Your task to perform on an android device: open app "Pandora - Music & Podcasts" (install if not already installed) and go to login screen Image 0: 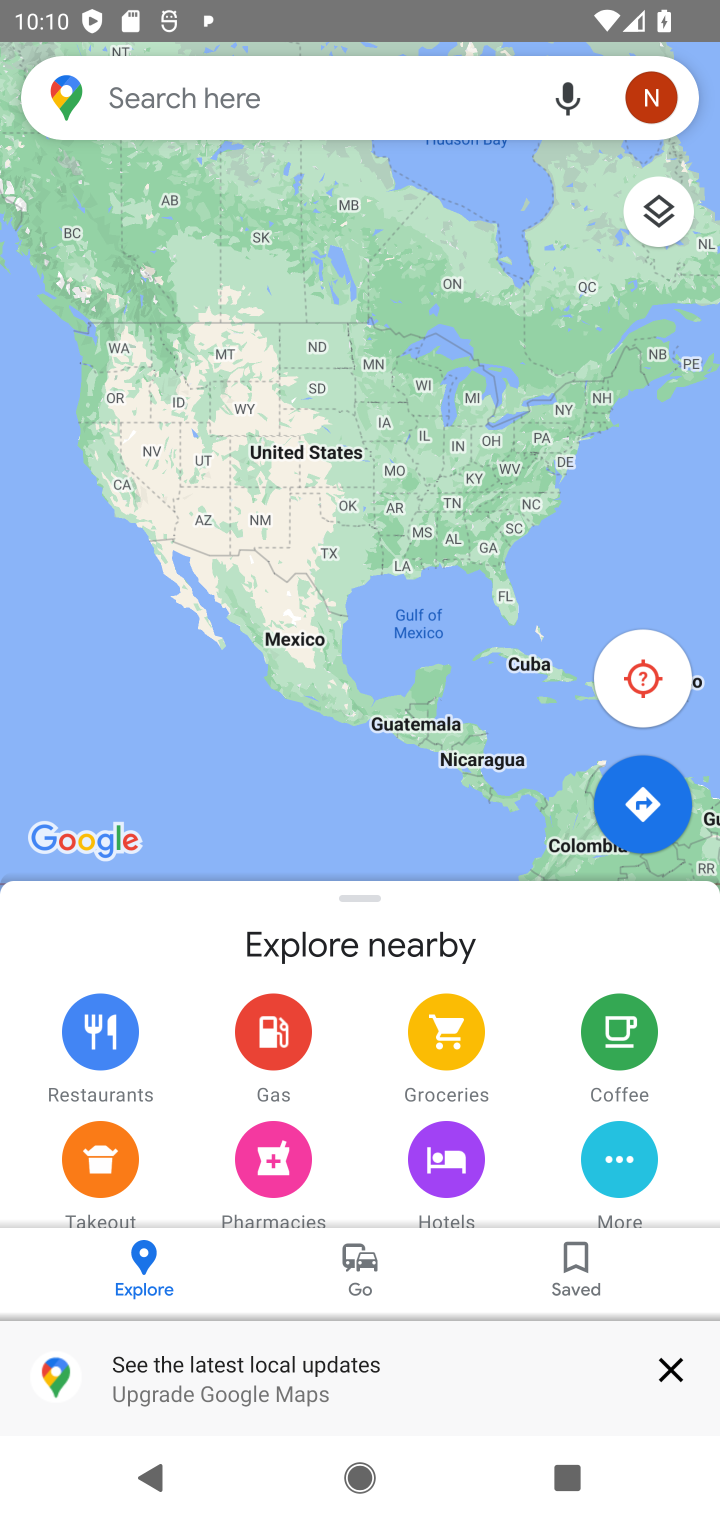
Step 0: press home button
Your task to perform on an android device: open app "Pandora - Music & Podcasts" (install if not already installed) and go to login screen Image 1: 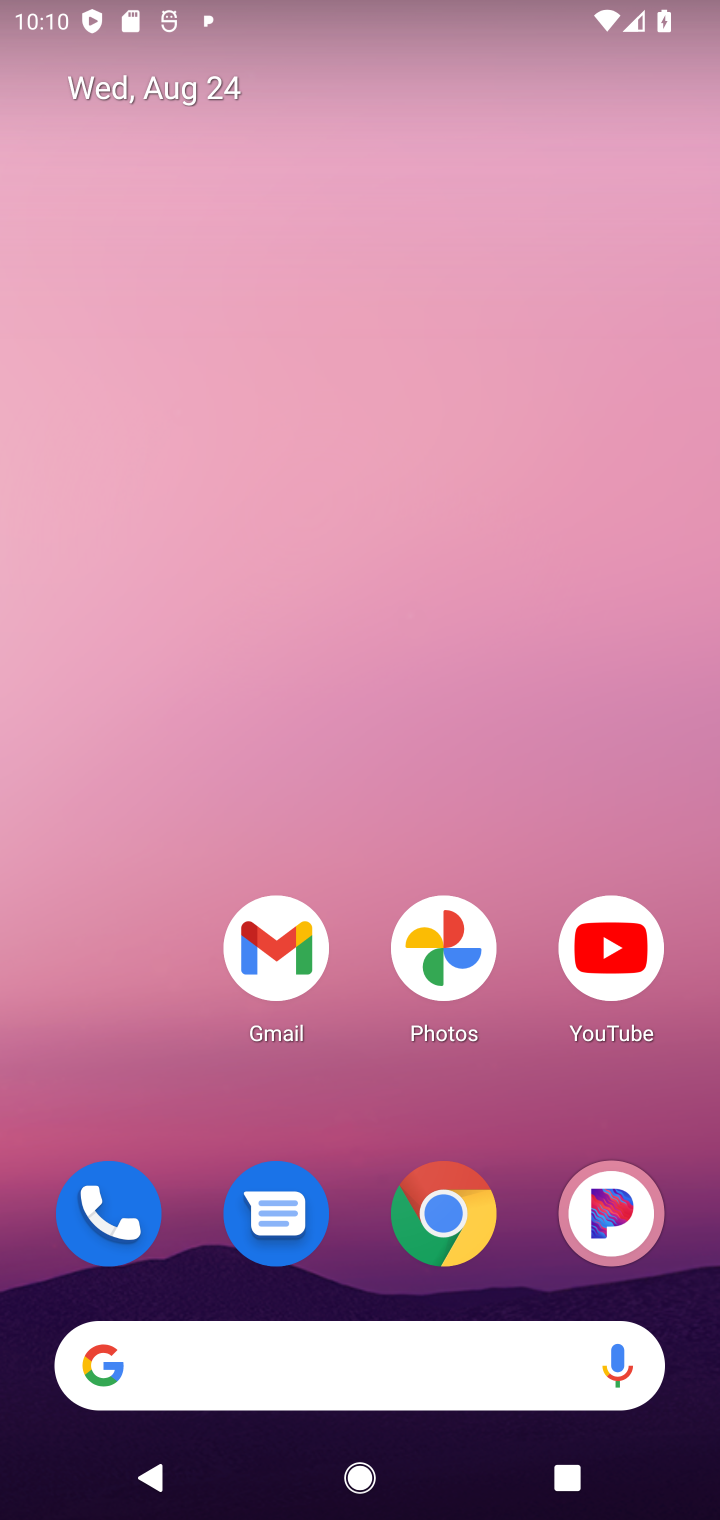
Step 1: drag from (339, 1291) to (456, 24)
Your task to perform on an android device: open app "Pandora - Music & Podcasts" (install if not already installed) and go to login screen Image 2: 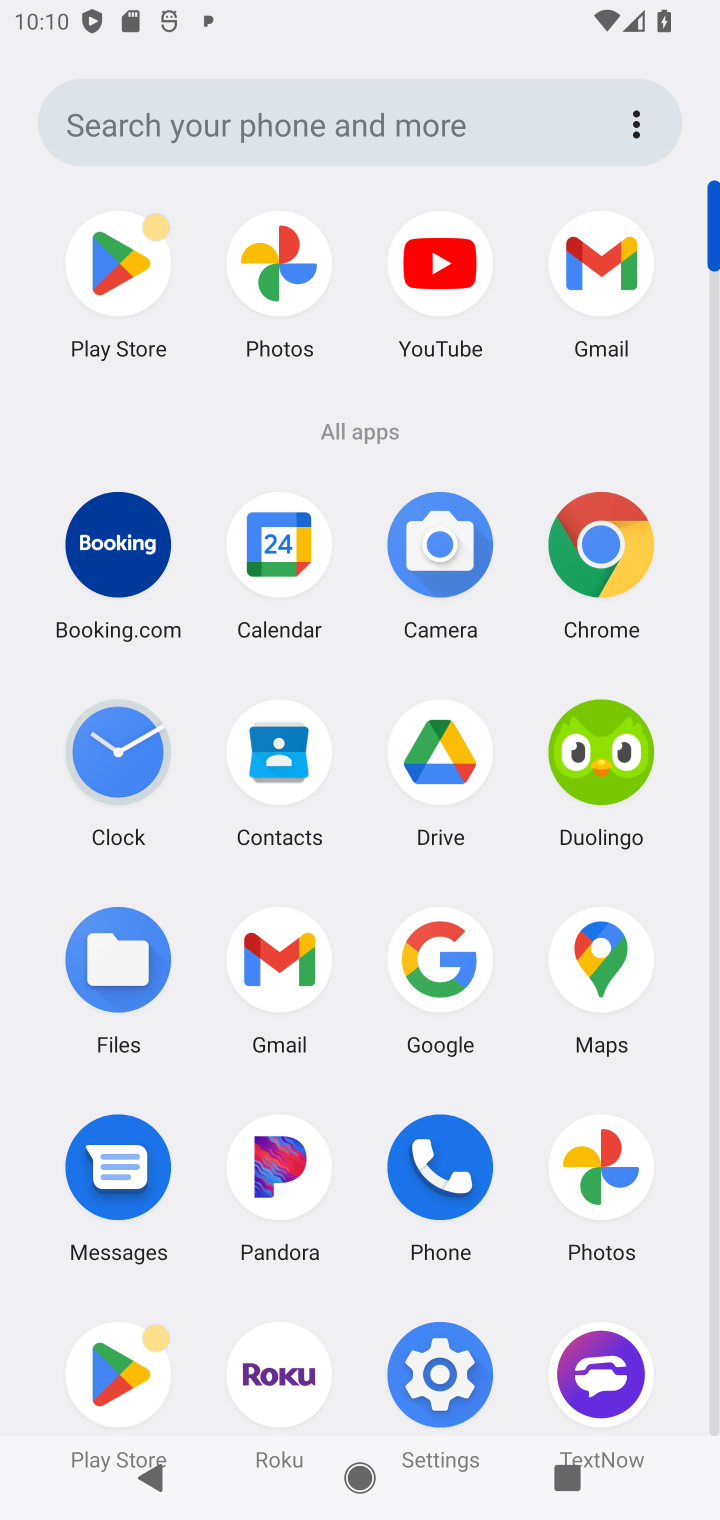
Step 2: click (114, 280)
Your task to perform on an android device: open app "Pandora - Music & Podcasts" (install if not already installed) and go to login screen Image 3: 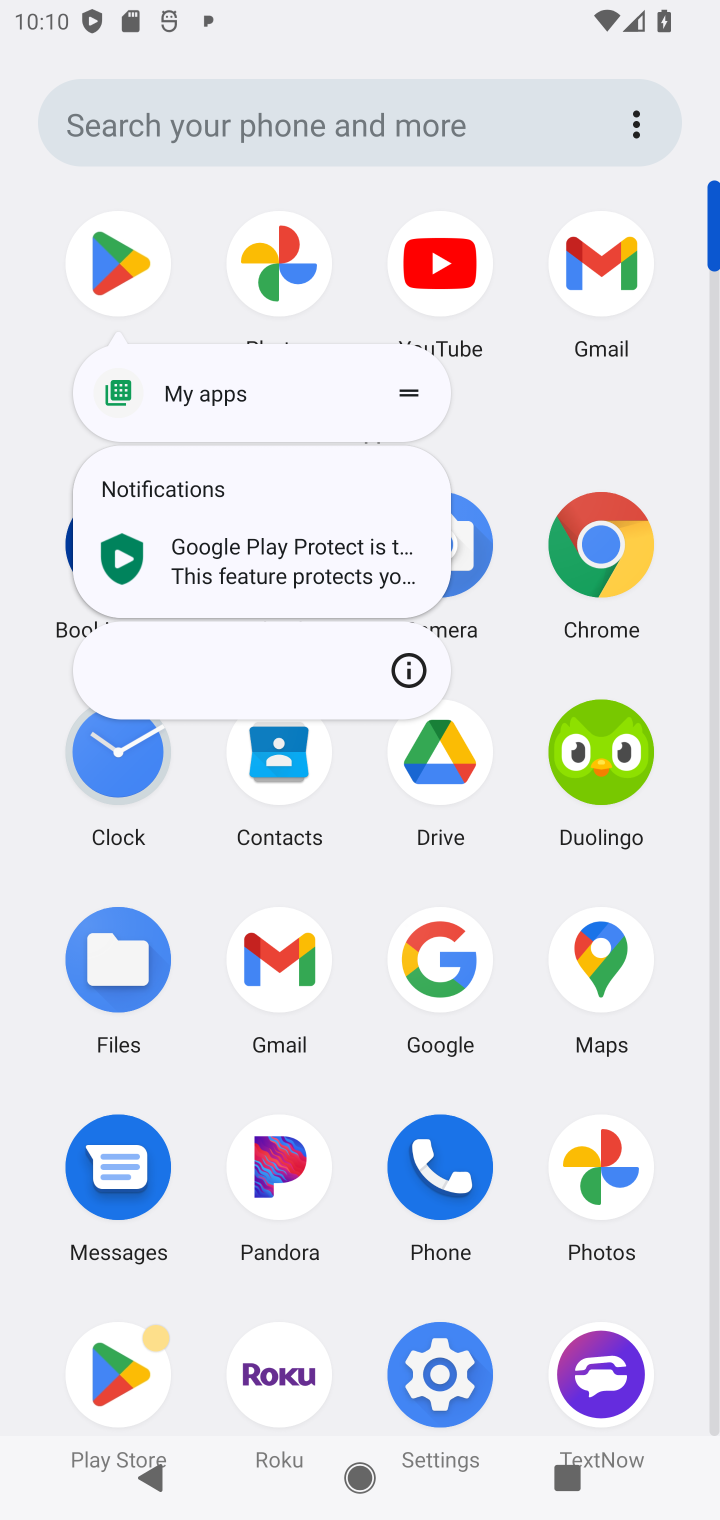
Step 3: click (122, 286)
Your task to perform on an android device: open app "Pandora - Music & Podcasts" (install if not already installed) and go to login screen Image 4: 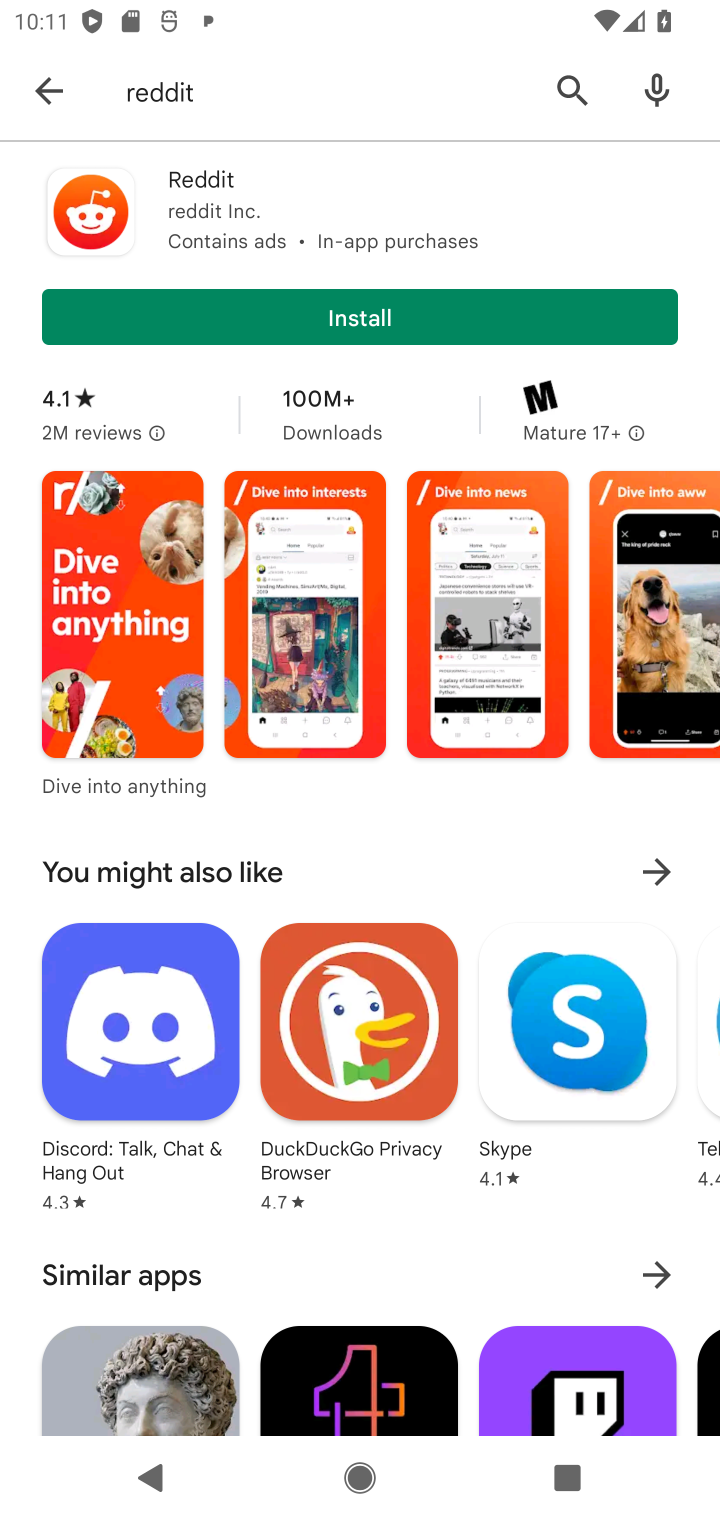
Step 4: click (281, 97)
Your task to perform on an android device: open app "Pandora - Music & Podcasts" (install if not already installed) and go to login screen Image 5: 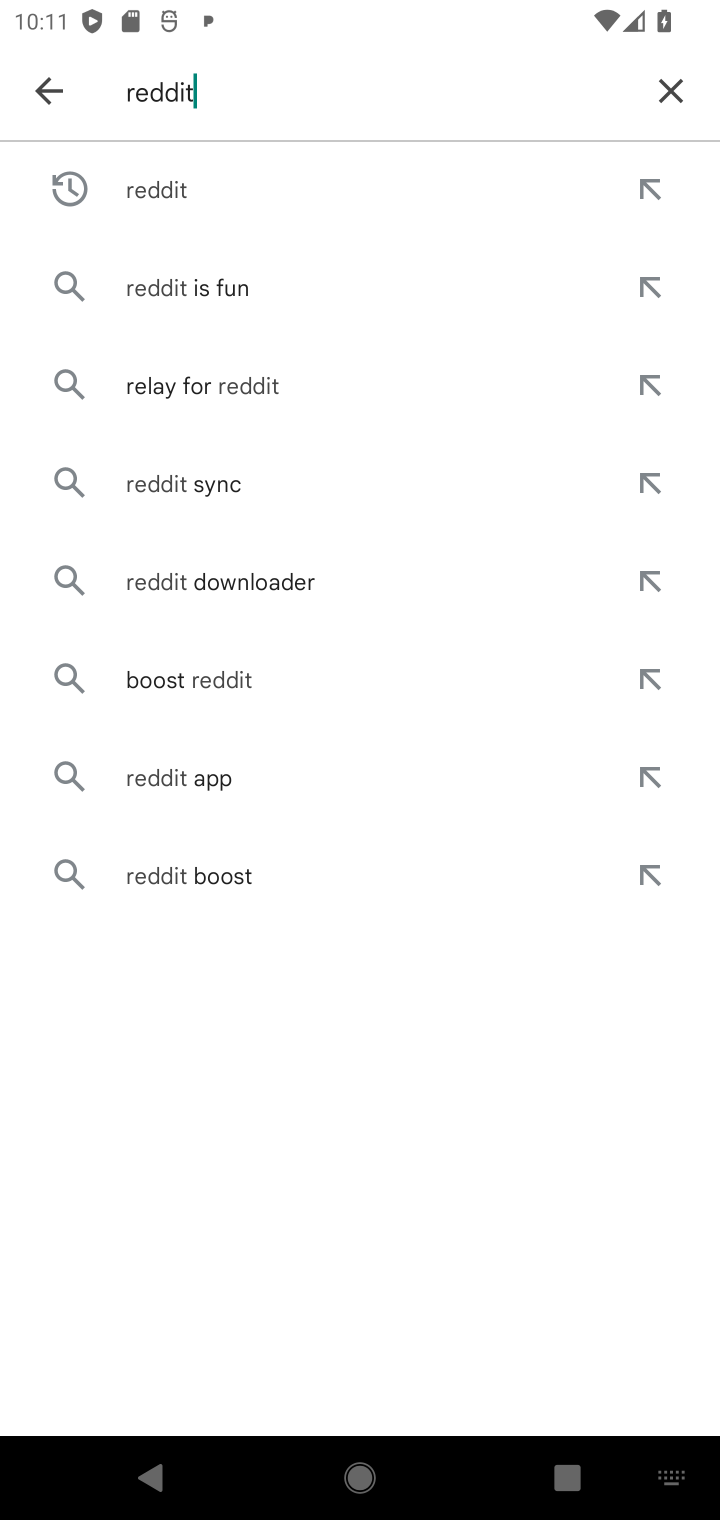
Step 5: click (644, 85)
Your task to perform on an android device: open app "Pandora - Music & Podcasts" (install if not already installed) and go to login screen Image 6: 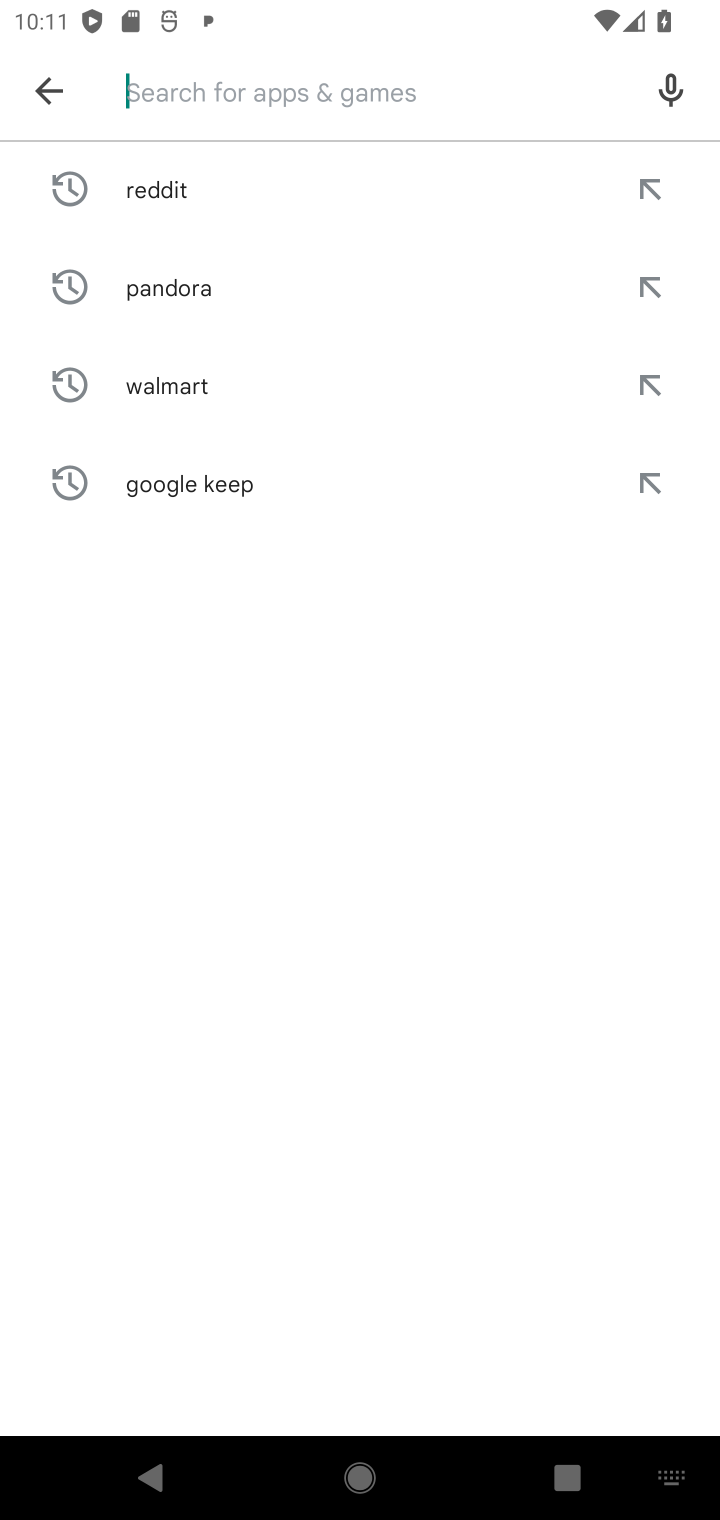
Step 6: type "pandora"
Your task to perform on an android device: open app "Pandora - Music & Podcasts" (install if not already installed) and go to login screen Image 7: 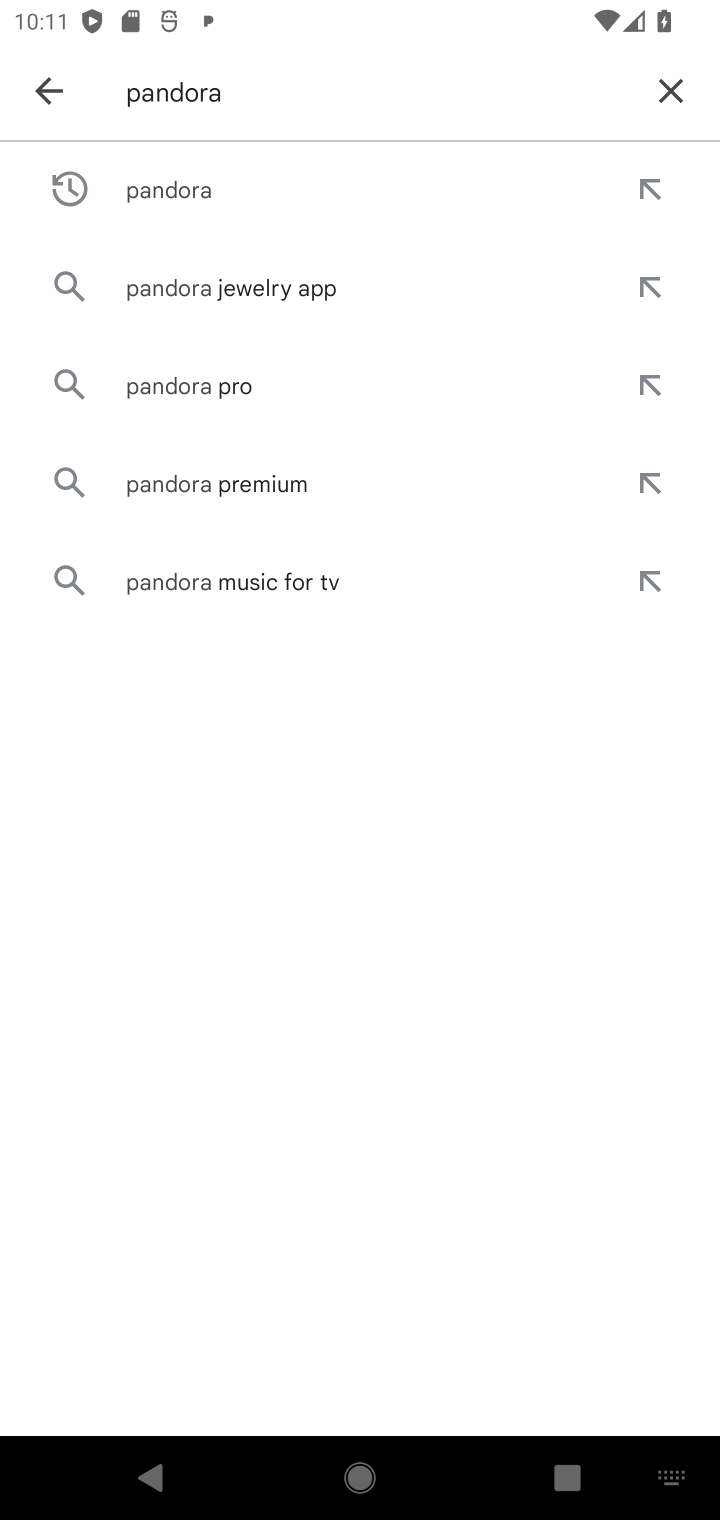
Step 7: click (220, 195)
Your task to perform on an android device: open app "Pandora - Music & Podcasts" (install if not already installed) and go to login screen Image 8: 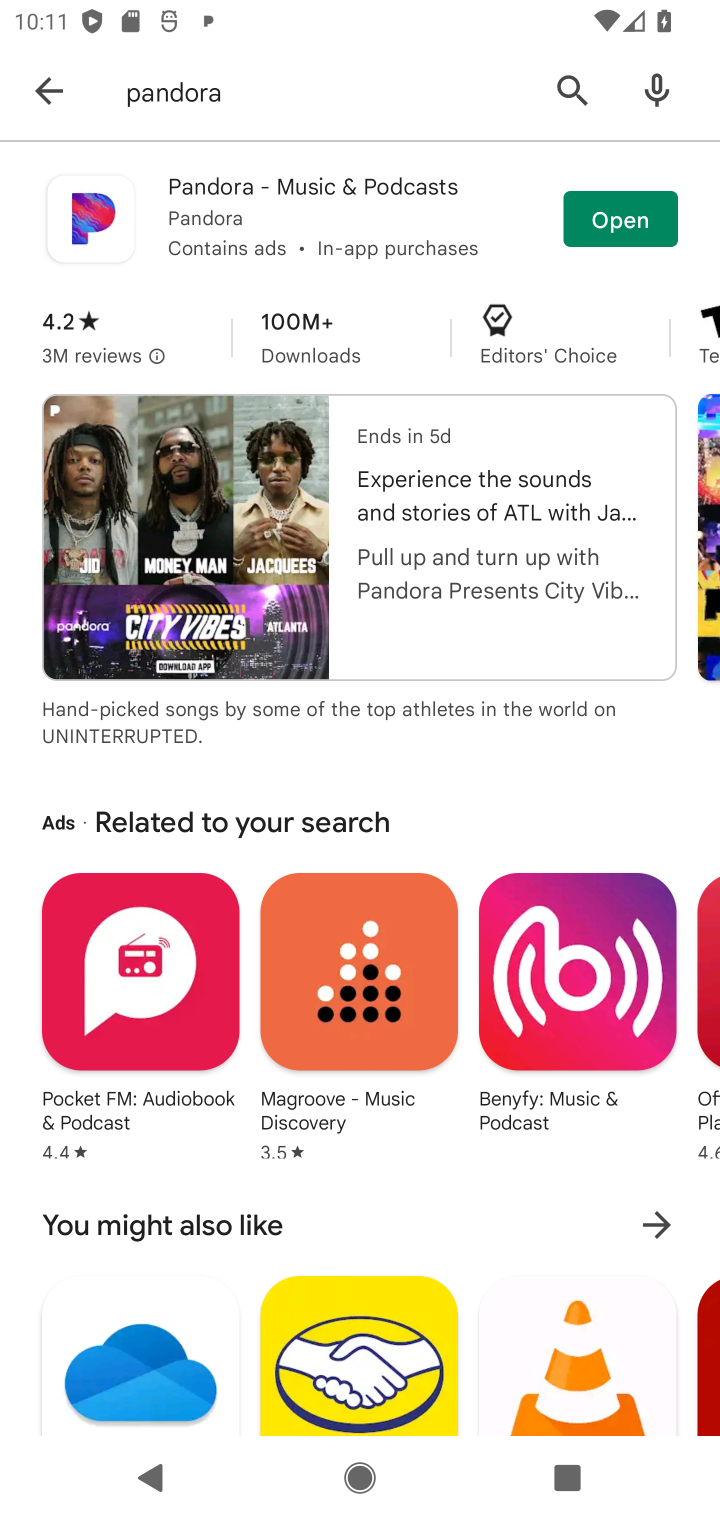
Step 8: click (625, 221)
Your task to perform on an android device: open app "Pandora - Music & Podcasts" (install if not already installed) and go to login screen Image 9: 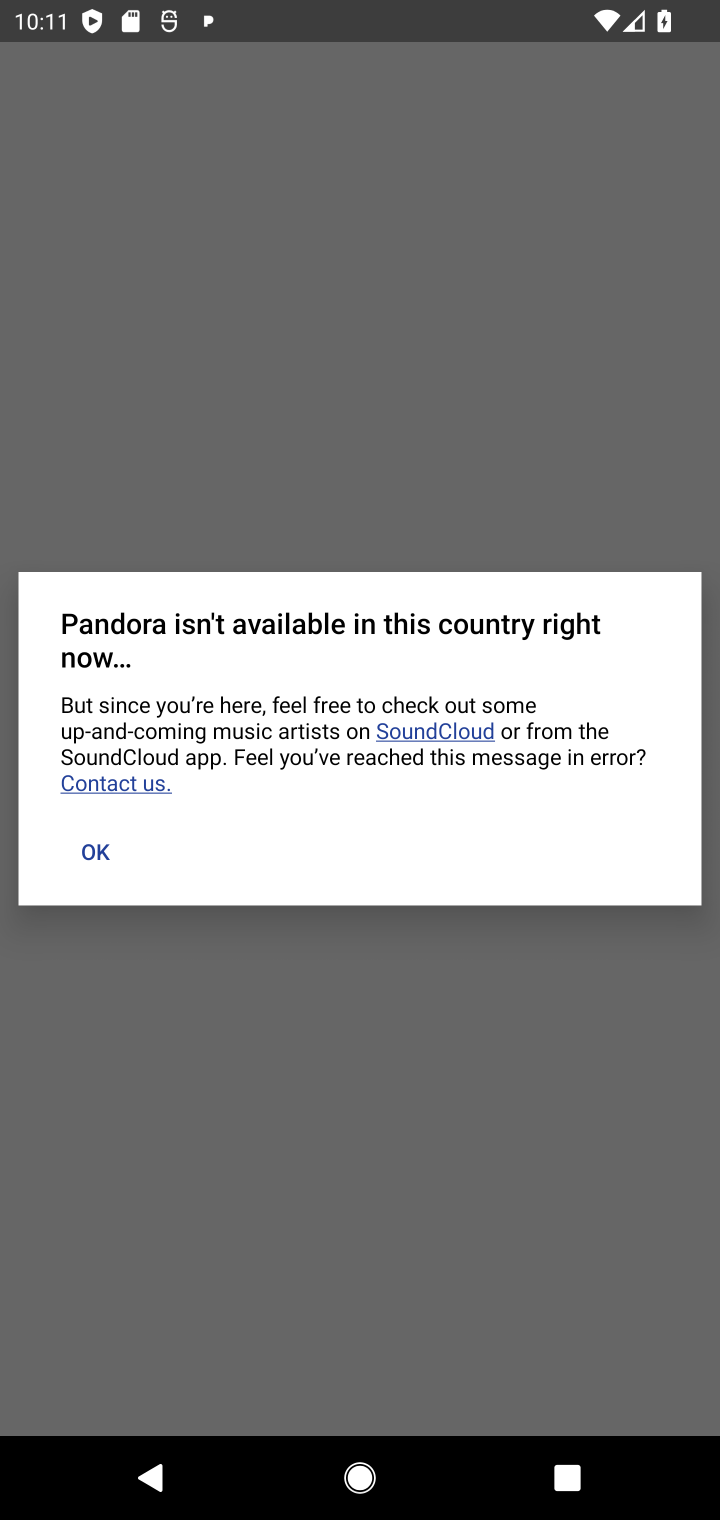
Step 9: click (72, 848)
Your task to perform on an android device: open app "Pandora - Music & Podcasts" (install if not already installed) and go to login screen Image 10: 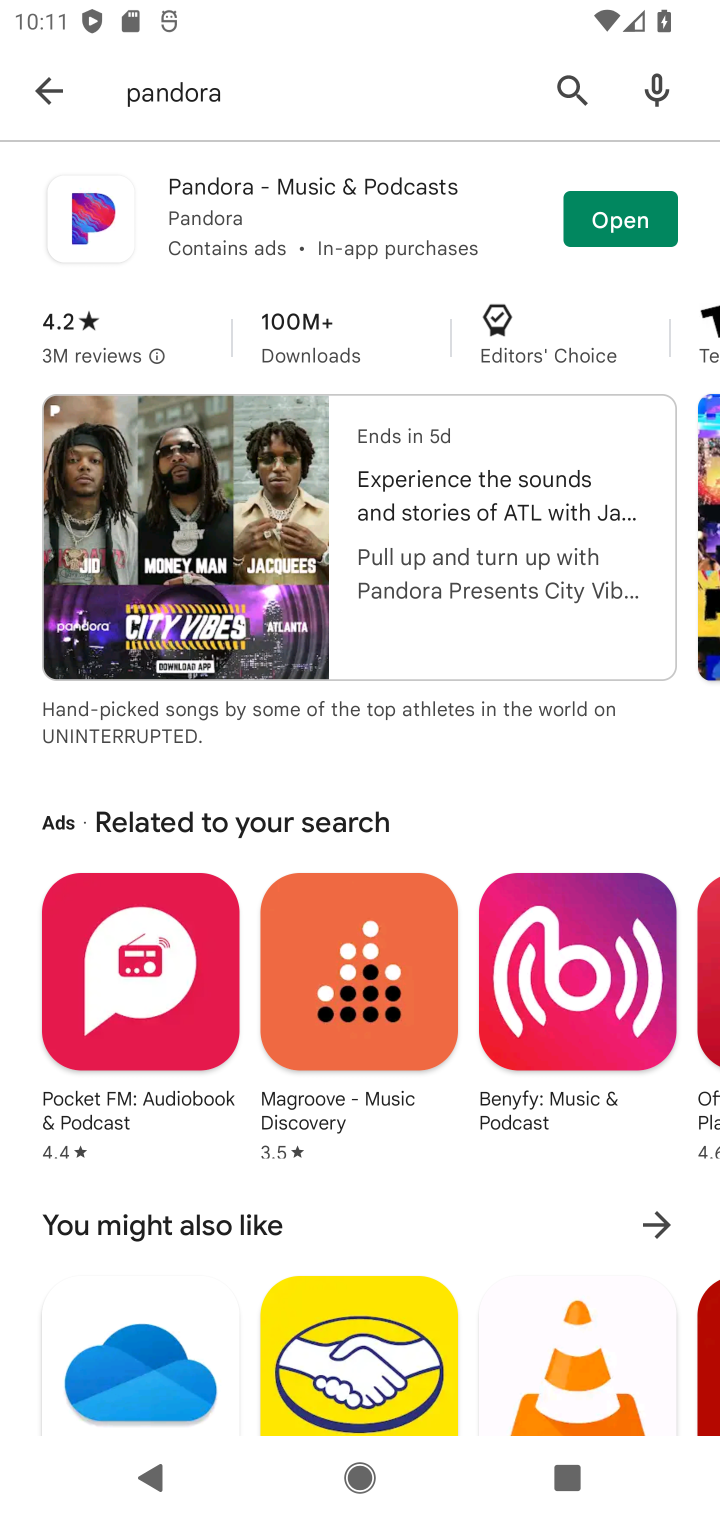
Step 10: task complete